Your task to perform on an android device: set the timer Image 0: 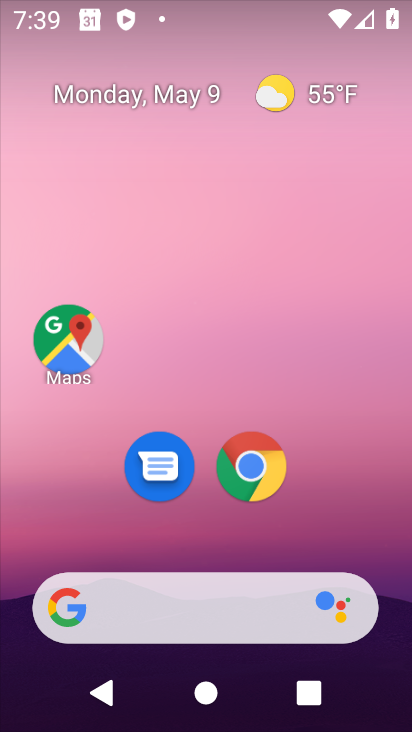
Step 0: drag from (294, 701) to (276, 76)
Your task to perform on an android device: set the timer Image 1: 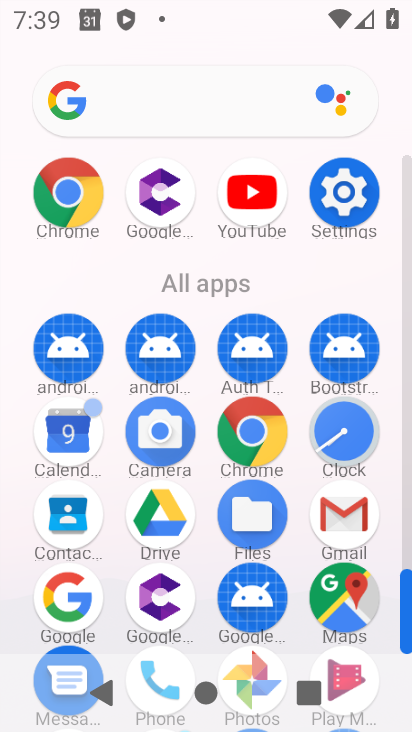
Step 1: click (332, 439)
Your task to perform on an android device: set the timer Image 2: 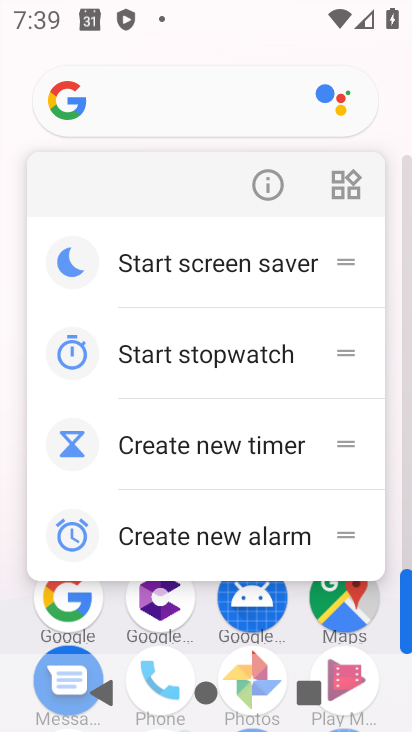
Step 2: click (195, 88)
Your task to perform on an android device: set the timer Image 3: 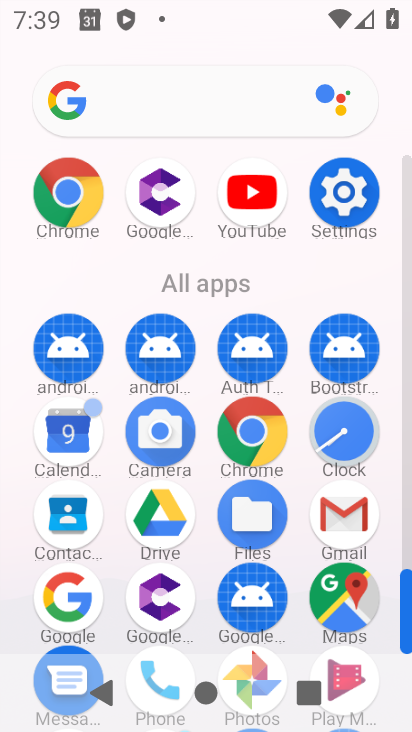
Step 3: click (342, 451)
Your task to perform on an android device: set the timer Image 4: 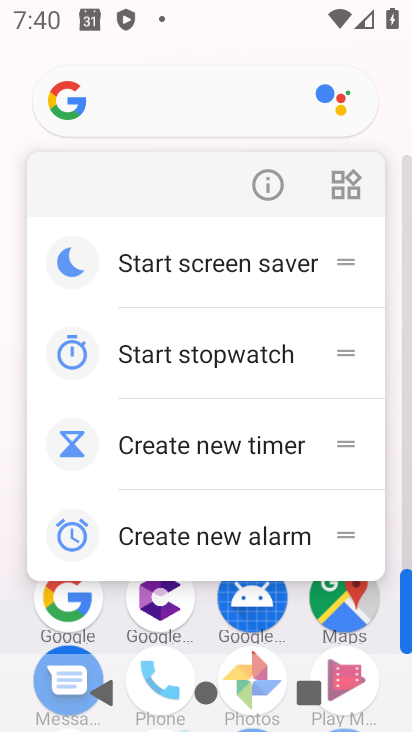
Step 4: click (348, 436)
Your task to perform on an android device: set the timer Image 5: 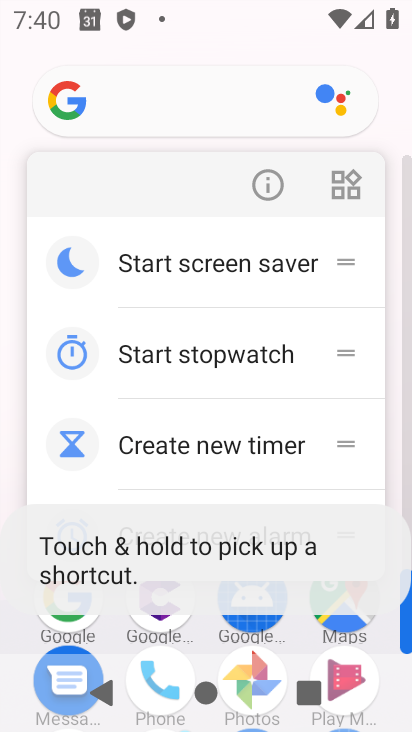
Step 5: click (215, 438)
Your task to perform on an android device: set the timer Image 6: 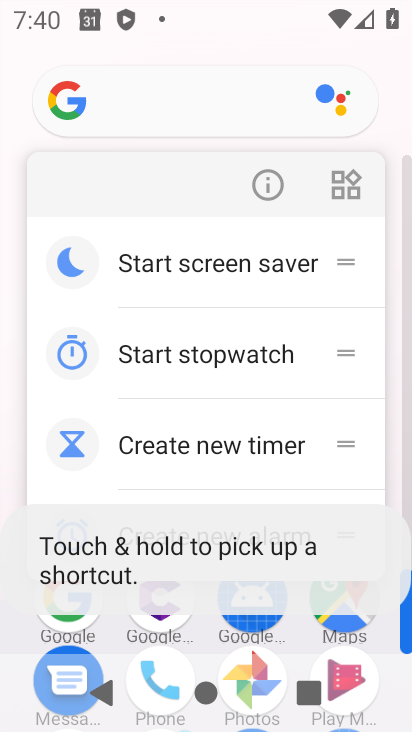
Step 6: click (216, 437)
Your task to perform on an android device: set the timer Image 7: 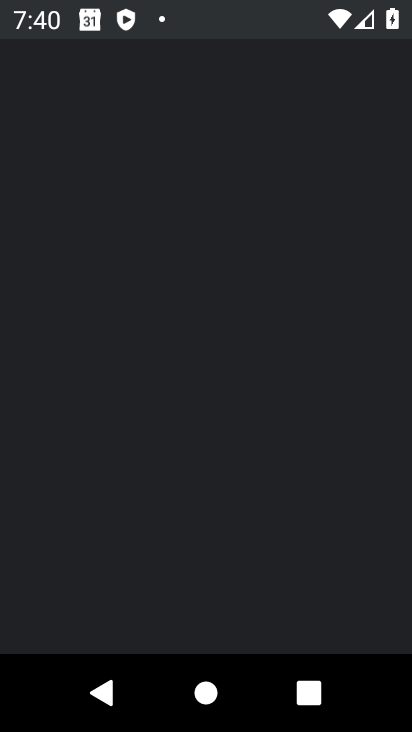
Step 7: click (217, 437)
Your task to perform on an android device: set the timer Image 8: 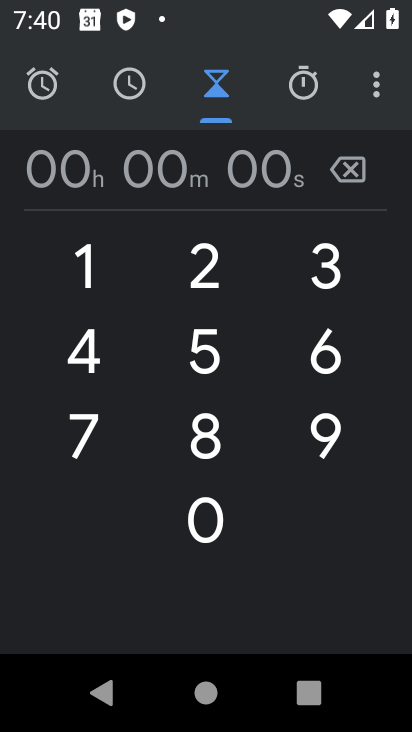
Step 8: click (209, 434)
Your task to perform on an android device: set the timer Image 9: 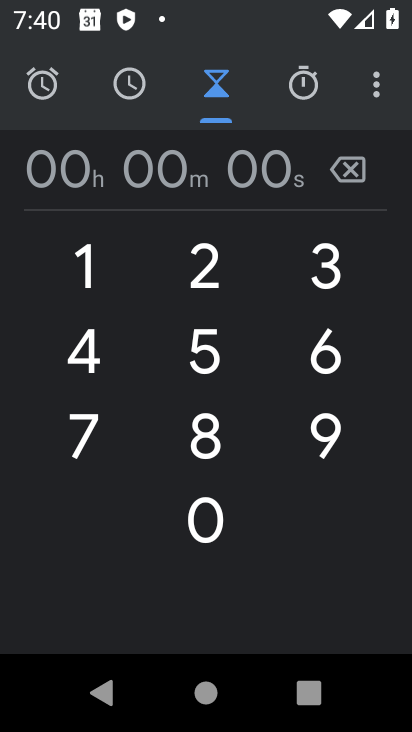
Step 9: click (209, 434)
Your task to perform on an android device: set the timer Image 10: 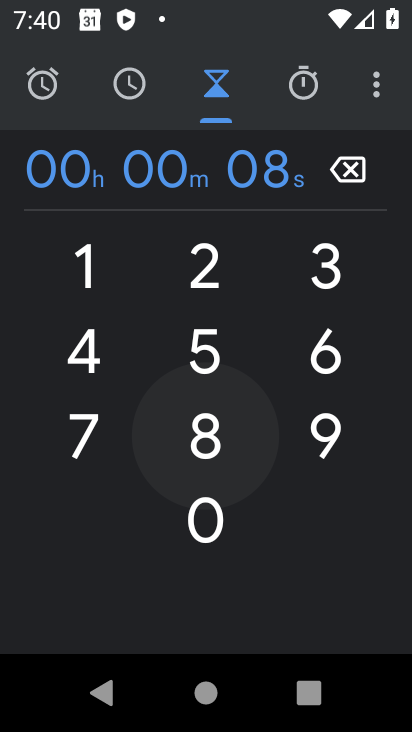
Step 10: click (209, 434)
Your task to perform on an android device: set the timer Image 11: 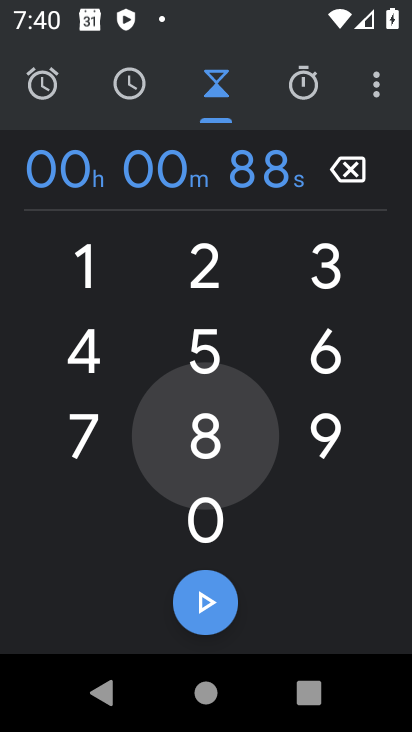
Step 11: click (209, 434)
Your task to perform on an android device: set the timer Image 12: 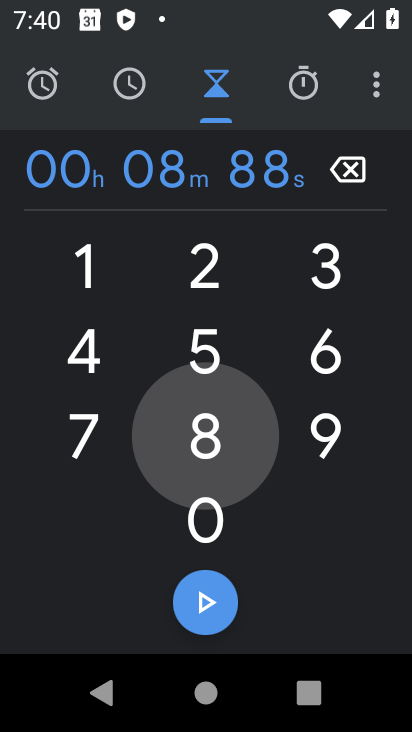
Step 12: click (209, 431)
Your task to perform on an android device: set the timer Image 13: 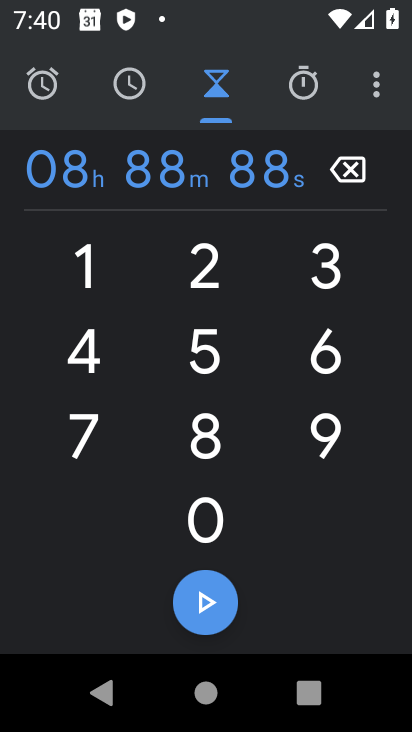
Step 13: click (208, 583)
Your task to perform on an android device: set the timer Image 14: 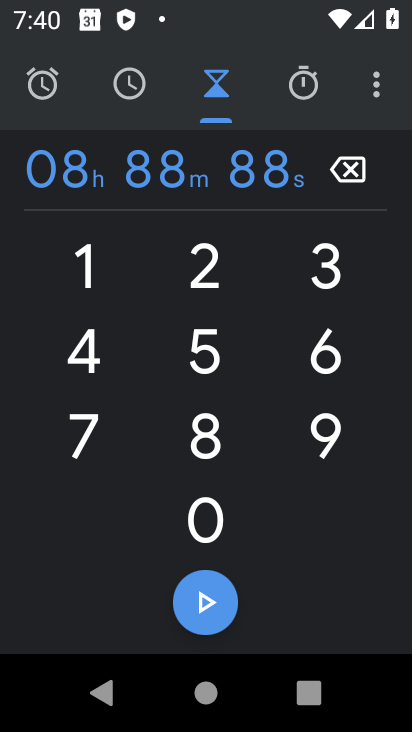
Step 14: click (209, 588)
Your task to perform on an android device: set the timer Image 15: 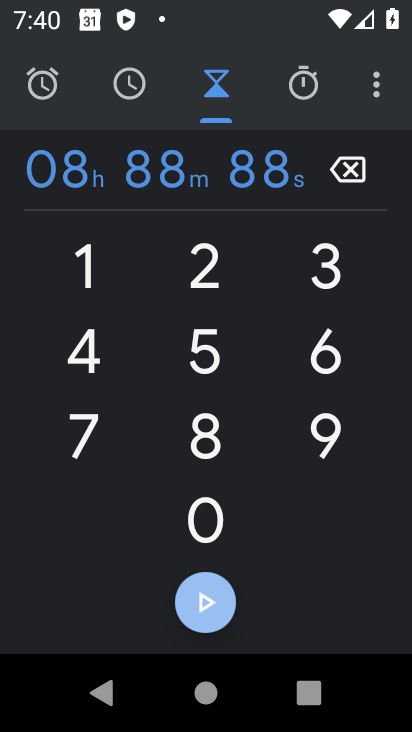
Step 15: click (221, 629)
Your task to perform on an android device: set the timer Image 16: 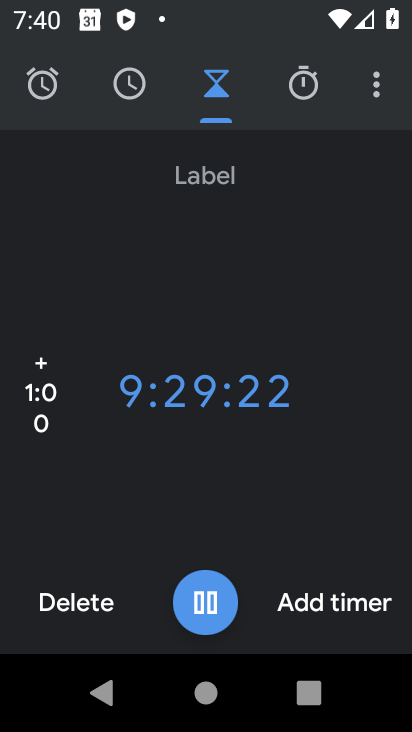
Step 16: click (208, 595)
Your task to perform on an android device: set the timer Image 17: 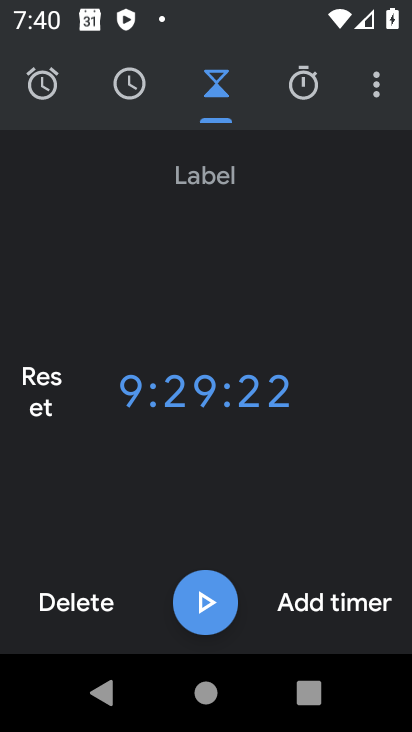
Step 17: click (316, 600)
Your task to perform on an android device: set the timer Image 18: 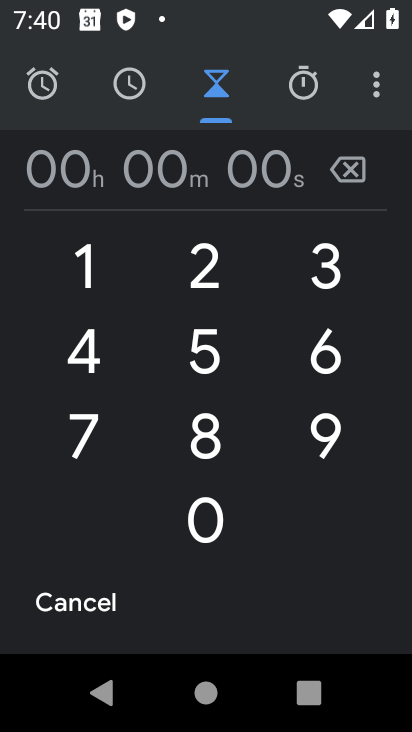
Step 18: task complete